Your task to perform on an android device: toggle wifi Image 0: 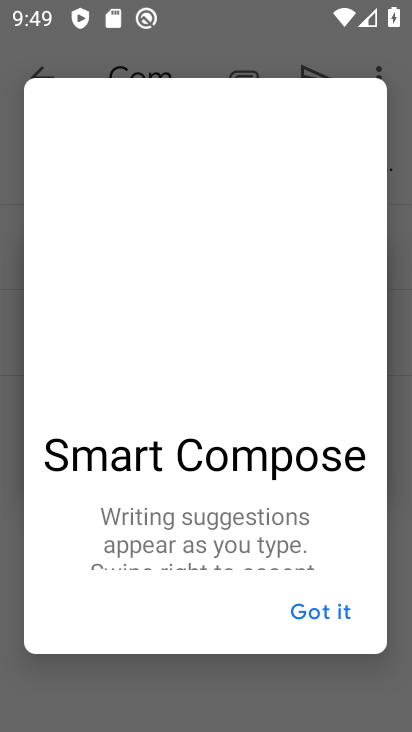
Step 0: press home button
Your task to perform on an android device: toggle wifi Image 1: 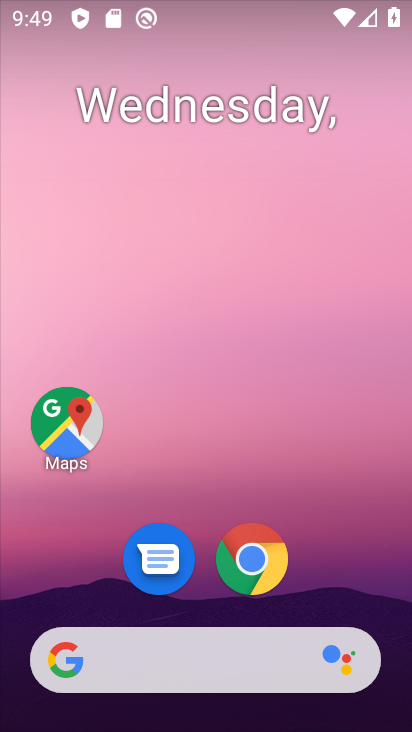
Step 1: drag from (358, 448) to (292, 83)
Your task to perform on an android device: toggle wifi Image 2: 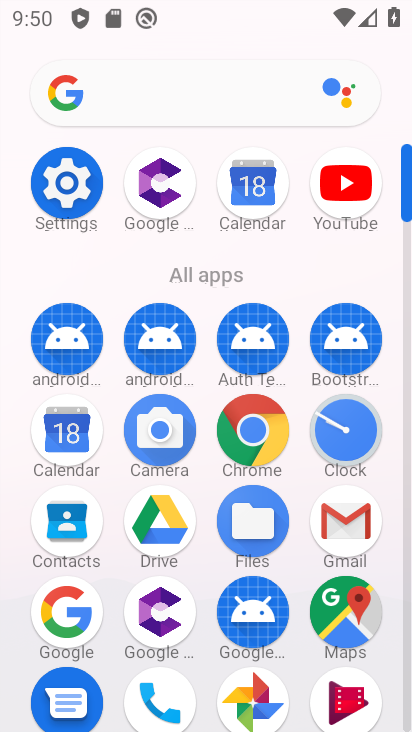
Step 2: click (69, 192)
Your task to perform on an android device: toggle wifi Image 3: 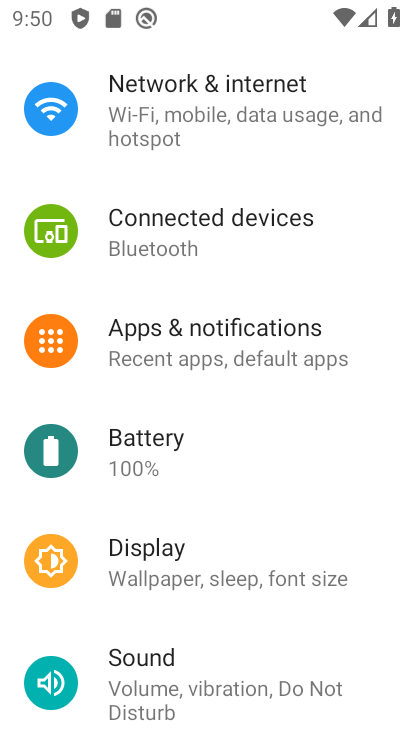
Step 3: drag from (216, 180) to (292, 663)
Your task to perform on an android device: toggle wifi Image 4: 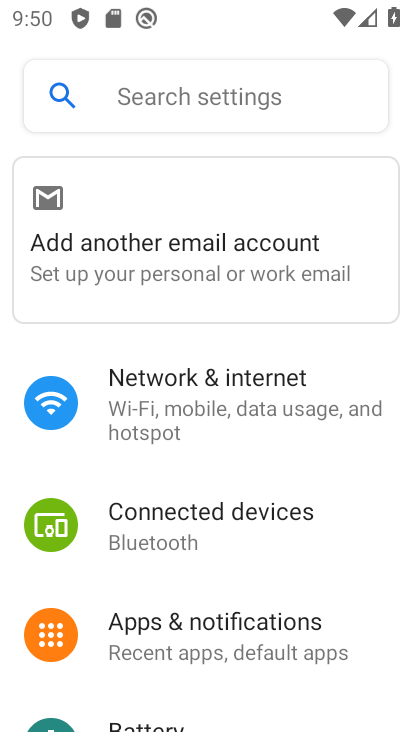
Step 4: click (167, 392)
Your task to perform on an android device: toggle wifi Image 5: 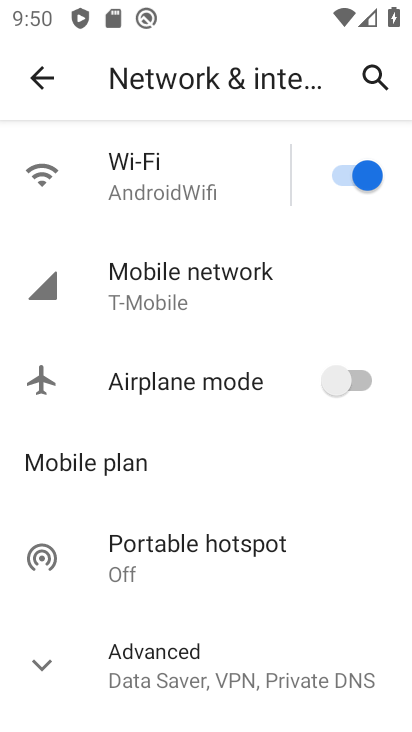
Step 5: drag from (224, 259) to (298, 731)
Your task to perform on an android device: toggle wifi Image 6: 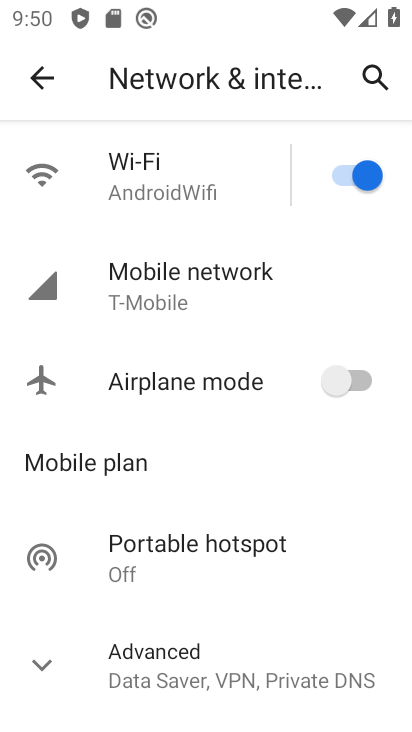
Step 6: click (349, 184)
Your task to perform on an android device: toggle wifi Image 7: 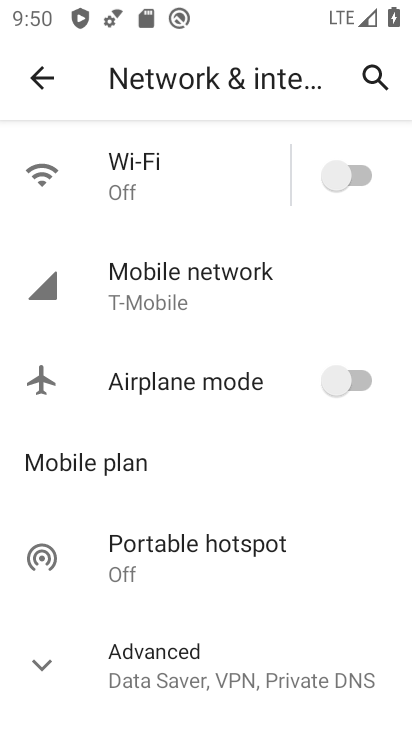
Step 7: task complete